Your task to perform on an android device: Open settings Image 0: 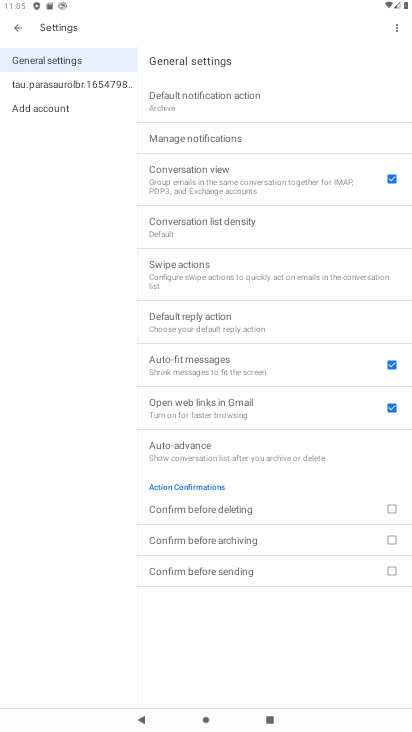
Step 0: press home button
Your task to perform on an android device: Open settings Image 1: 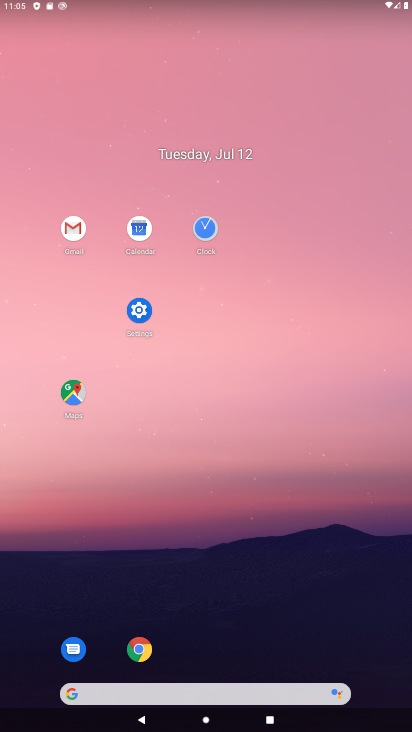
Step 1: click (138, 297)
Your task to perform on an android device: Open settings Image 2: 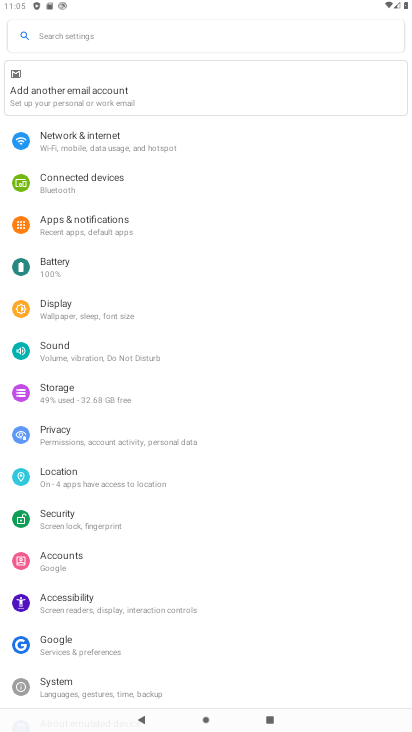
Step 2: task complete